Your task to perform on an android device: change timer sound Image 0: 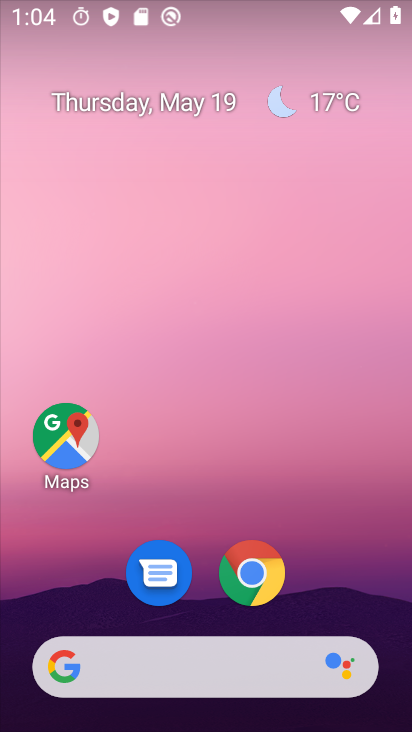
Step 0: drag from (215, 594) to (266, 141)
Your task to perform on an android device: change timer sound Image 1: 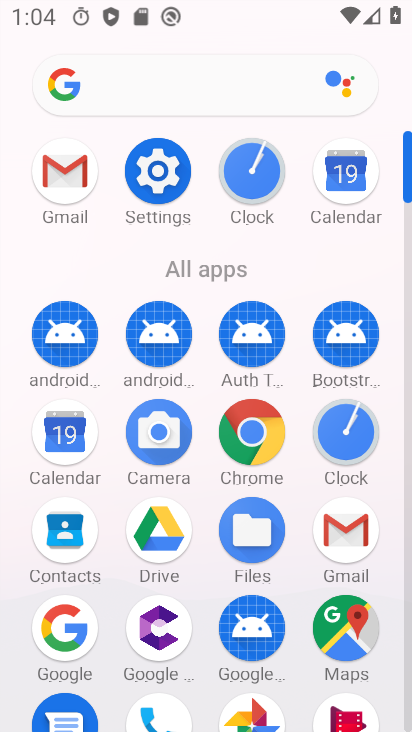
Step 1: click (349, 444)
Your task to perform on an android device: change timer sound Image 2: 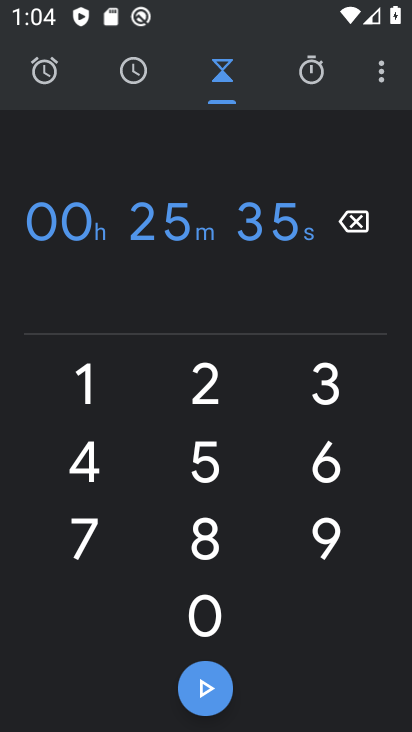
Step 2: click (382, 64)
Your task to perform on an android device: change timer sound Image 3: 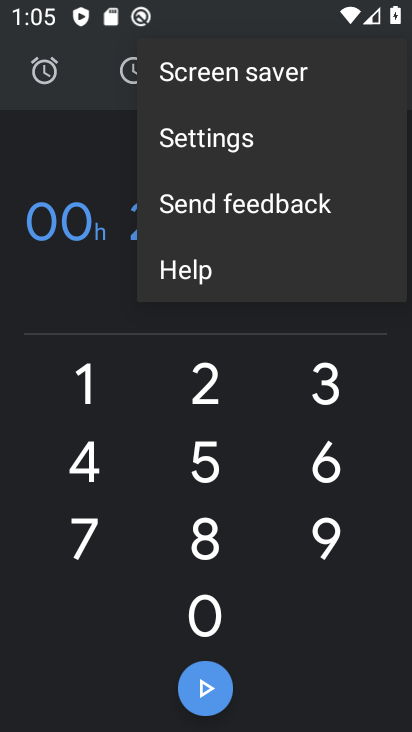
Step 3: click (263, 124)
Your task to perform on an android device: change timer sound Image 4: 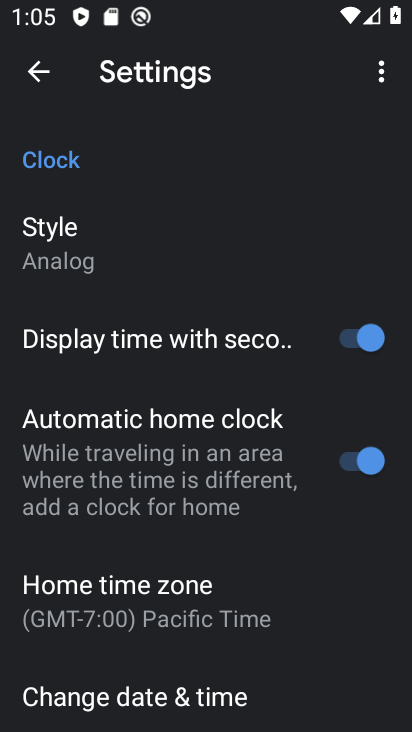
Step 4: drag from (149, 673) to (235, 164)
Your task to perform on an android device: change timer sound Image 5: 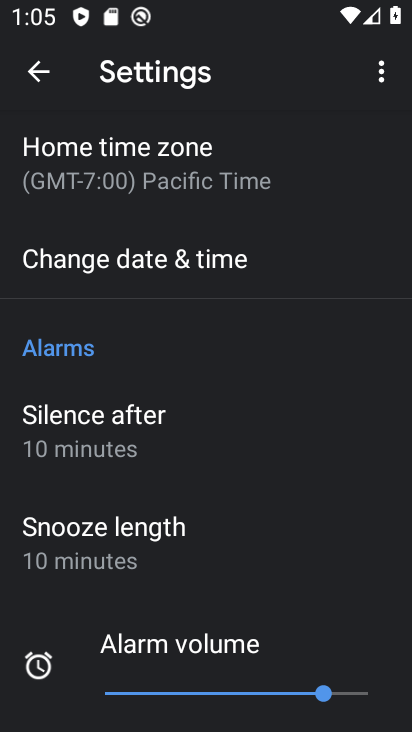
Step 5: drag from (136, 575) to (257, 108)
Your task to perform on an android device: change timer sound Image 6: 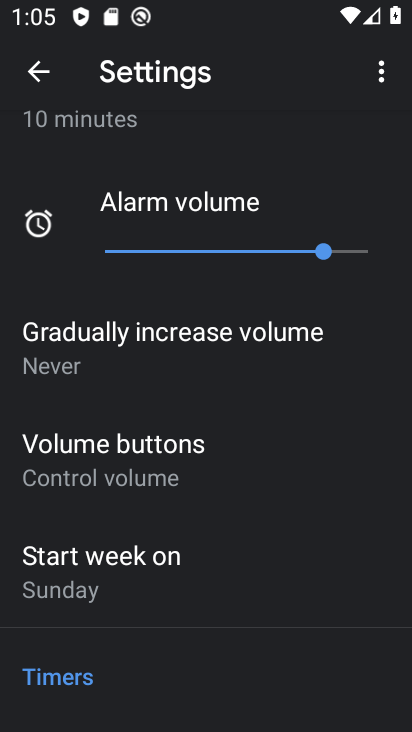
Step 6: drag from (170, 606) to (287, 109)
Your task to perform on an android device: change timer sound Image 7: 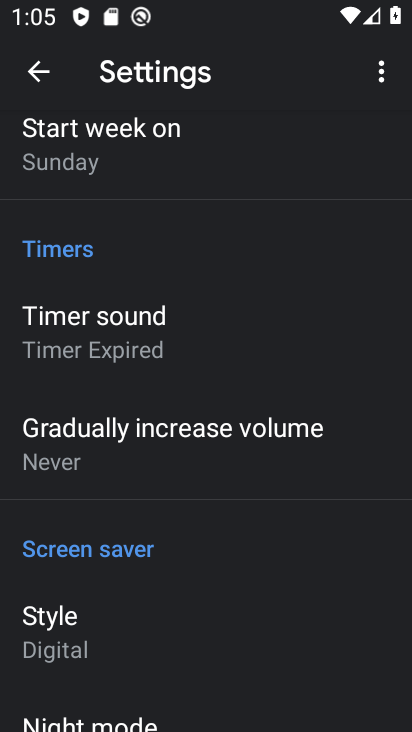
Step 7: click (109, 331)
Your task to perform on an android device: change timer sound Image 8: 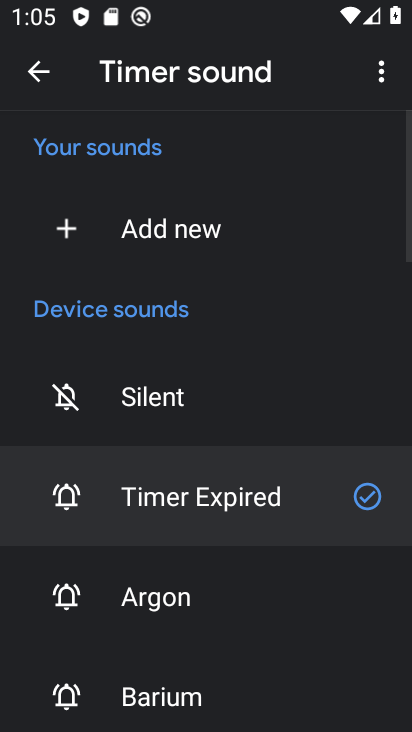
Step 8: click (78, 589)
Your task to perform on an android device: change timer sound Image 9: 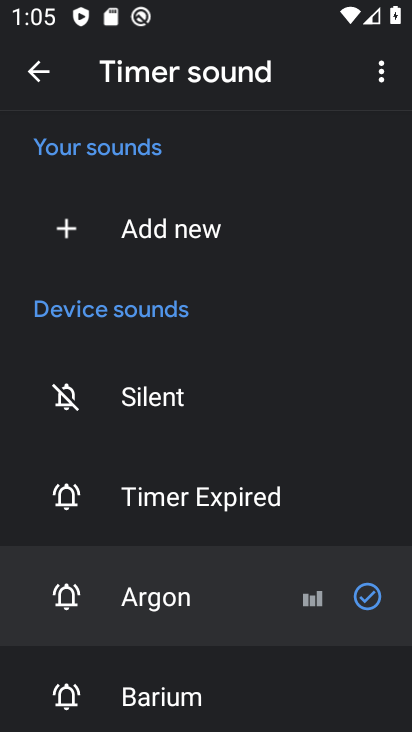
Step 9: task complete